Your task to perform on an android device: Open internet settings Image 0: 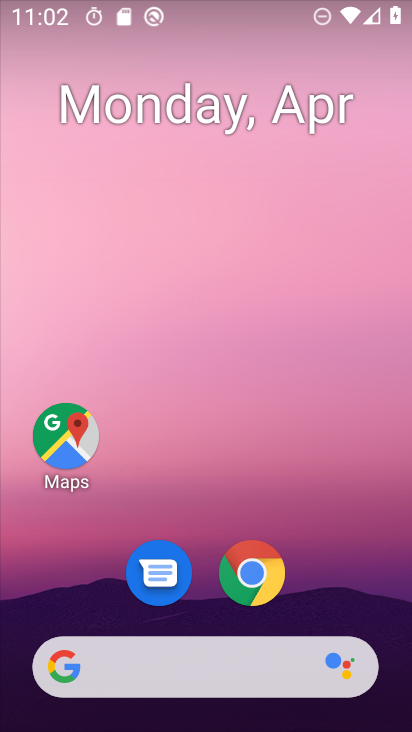
Step 0: drag from (338, 378) to (321, 25)
Your task to perform on an android device: Open internet settings Image 1: 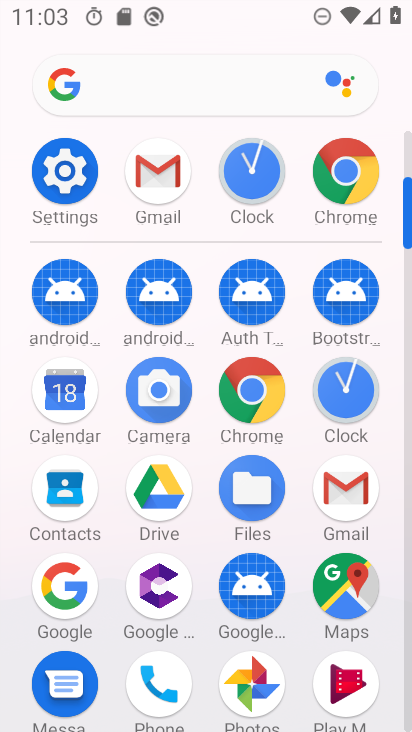
Step 1: click (32, 178)
Your task to perform on an android device: Open internet settings Image 2: 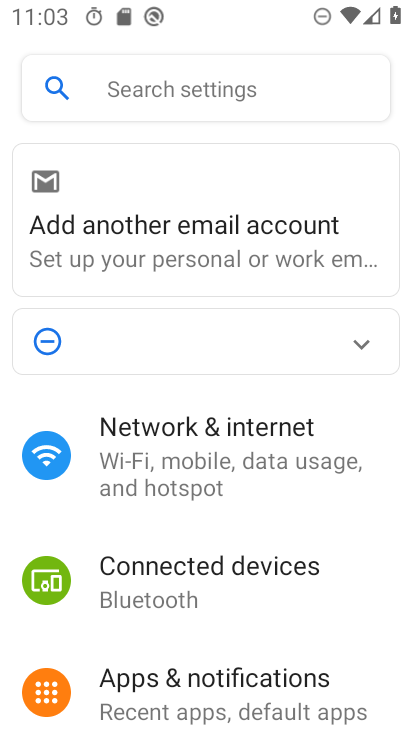
Step 2: click (132, 448)
Your task to perform on an android device: Open internet settings Image 3: 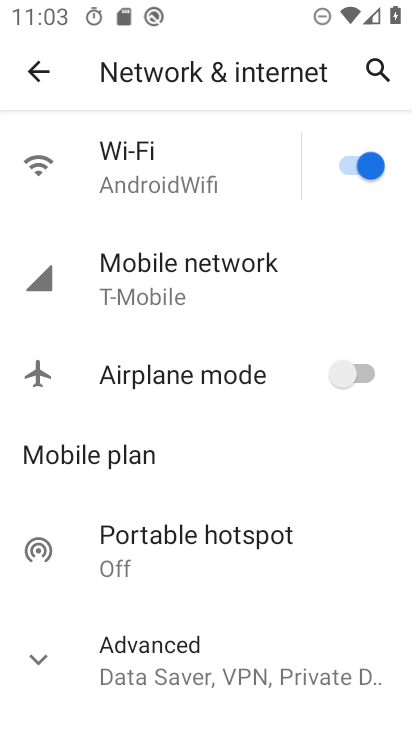
Step 3: click (173, 185)
Your task to perform on an android device: Open internet settings Image 4: 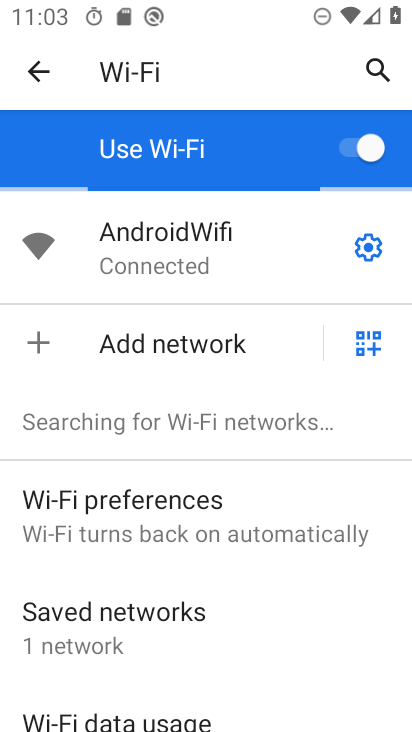
Step 4: task complete